Your task to perform on an android device: Open Youtube and go to "Your channel" Image 0: 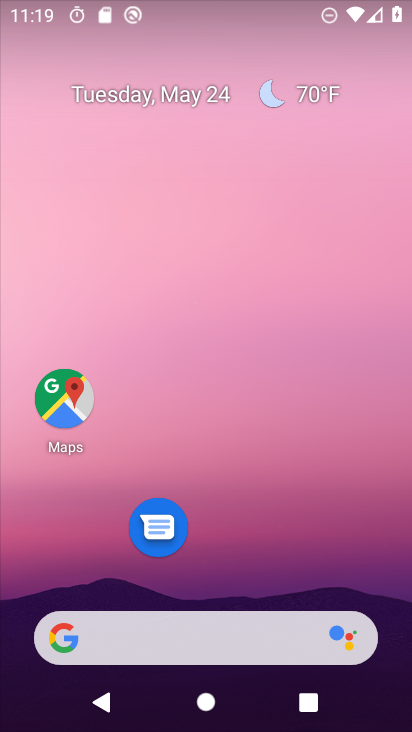
Step 0: drag from (260, 558) to (267, 96)
Your task to perform on an android device: Open Youtube and go to "Your channel" Image 1: 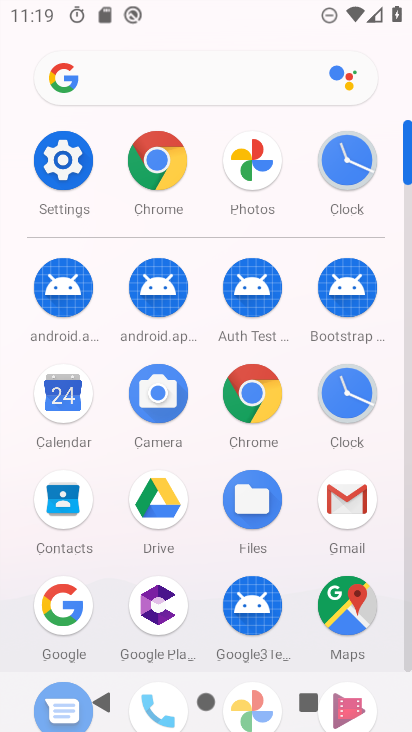
Step 1: drag from (206, 590) to (253, 159)
Your task to perform on an android device: Open Youtube and go to "Your channel" Image 2: 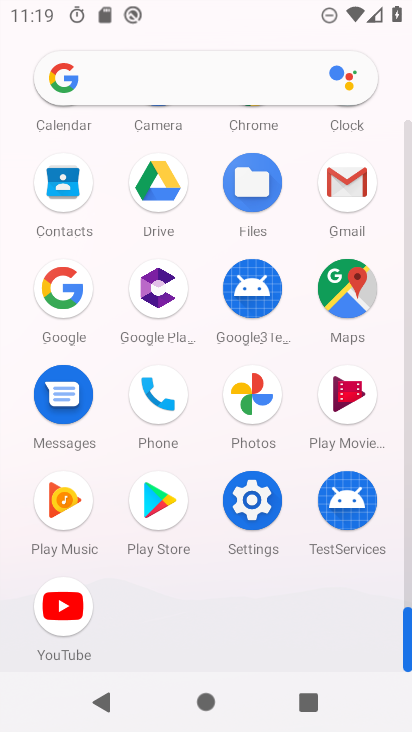
Step 2: click (65, 601)
Your task to perform on an android device: Open Youtube and go to "Your channel" Image 3: 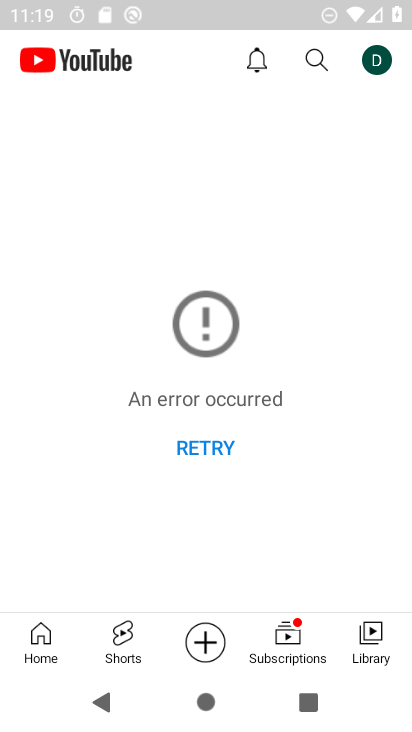
Step 3: click (379, 54)
Your task to perform on an android device: Open Youtube and go to "Your channel" Image 4: 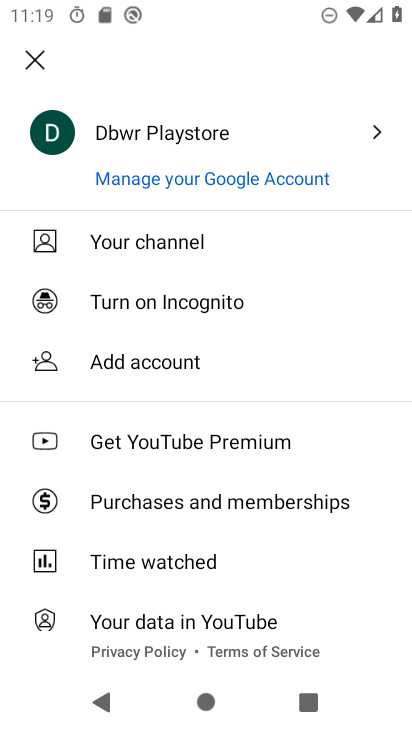
Step 4: click (185, 242)
Your task to perform on an android device: Open Youtube and go to "Your channel" Image 5: 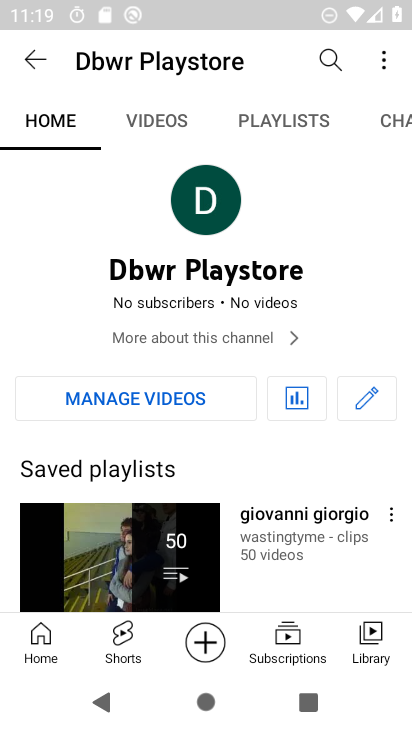
Step 5: task complete